Your task to perform on an android device: Open Amazon Image 0: 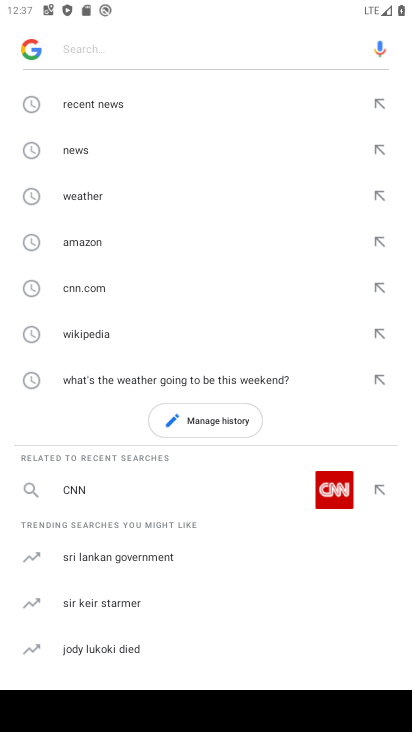
Step 0: press home button
Your task to perform on an android device: Open Amazon Image 1: 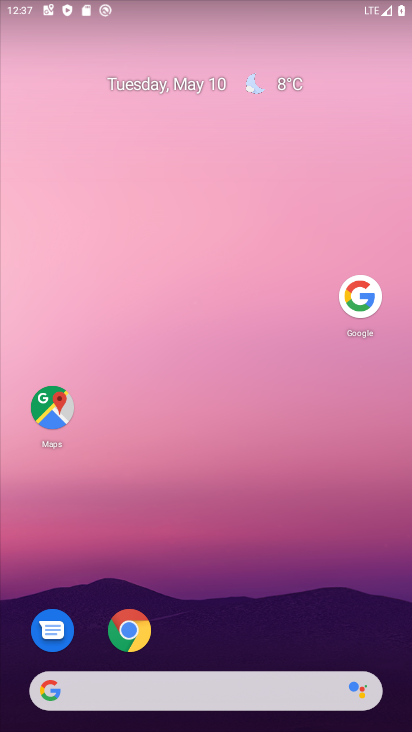
Step 1: click (120, 627)
Your task to perform on an android device: Open Amazon Image 2: 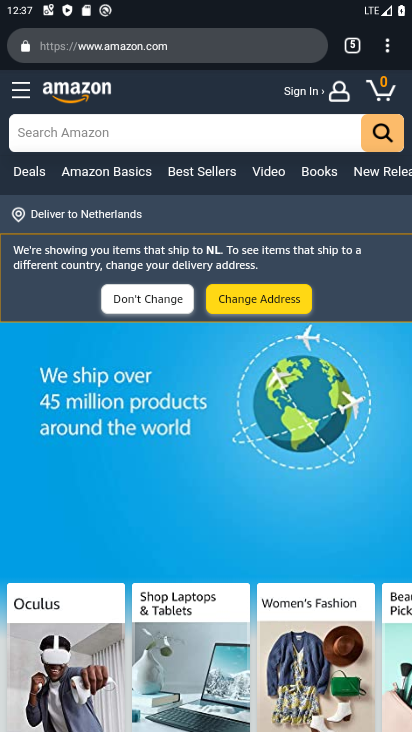
Step 2: task complete